Your task to perform on an android device: Go to network settings Image 0: 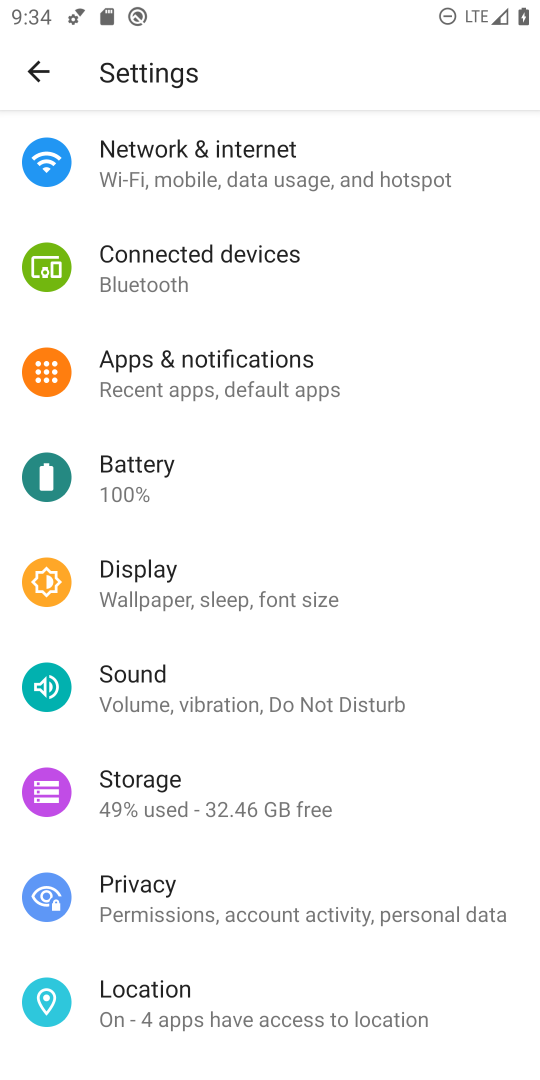
Step 0: press home button
Your task to perform on an android device: Go to network settings Image 1: 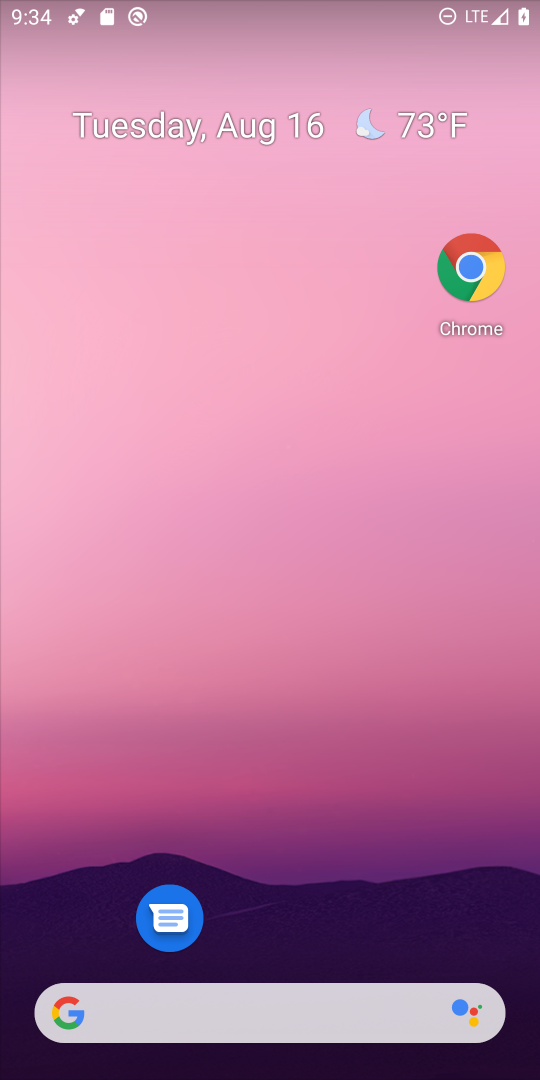
Step 1: drag from (266, 1008) to (308, 397)
Your task to perform on an android device: Go to network settings Image 2: 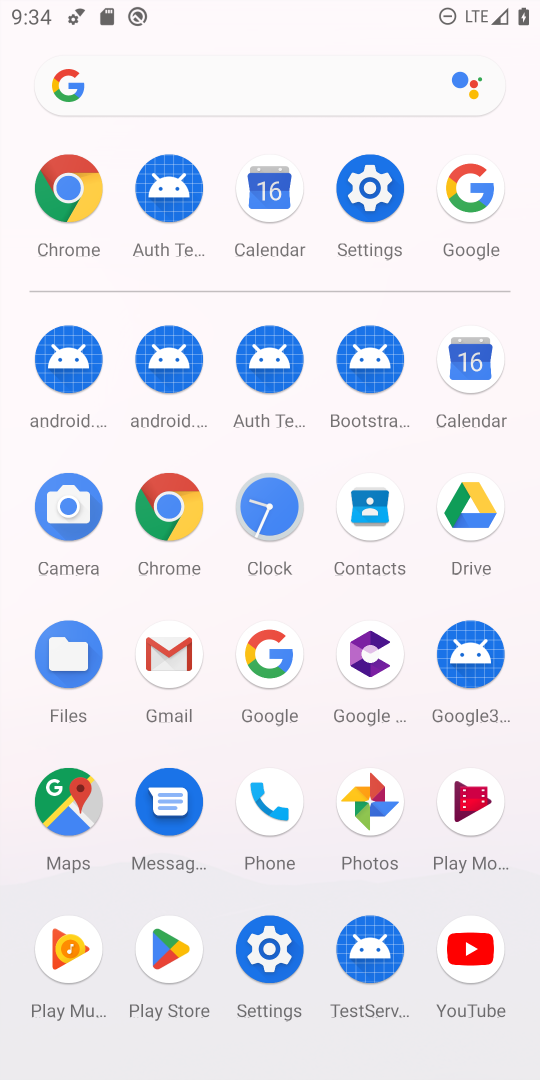
Step 2: click (373, 232)
Your task to perform on an android device: Go to network settings Image 3: 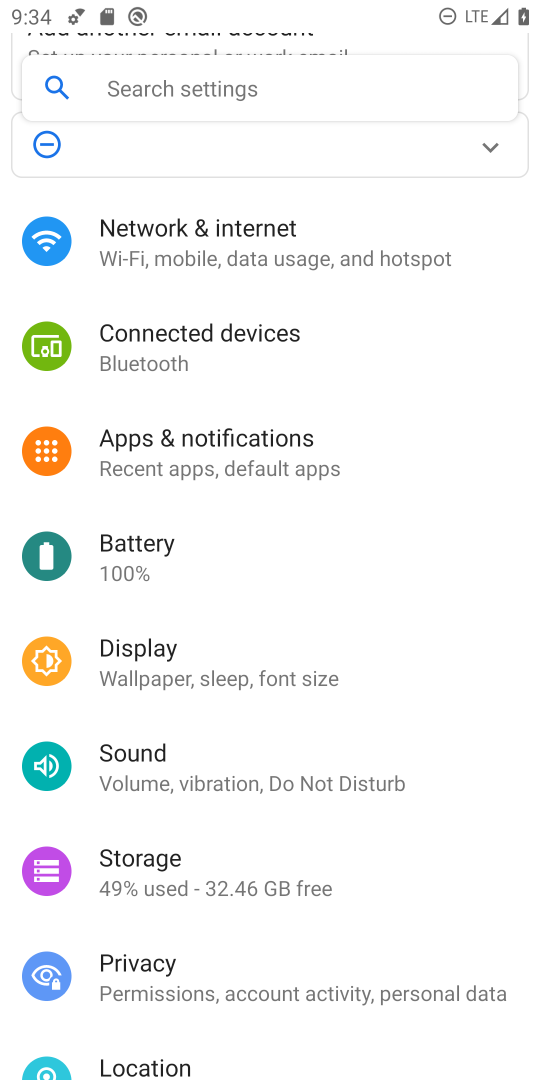
Step 3: click (243, 233)
Your task to perform on an android device: Go to network settings Image 4: 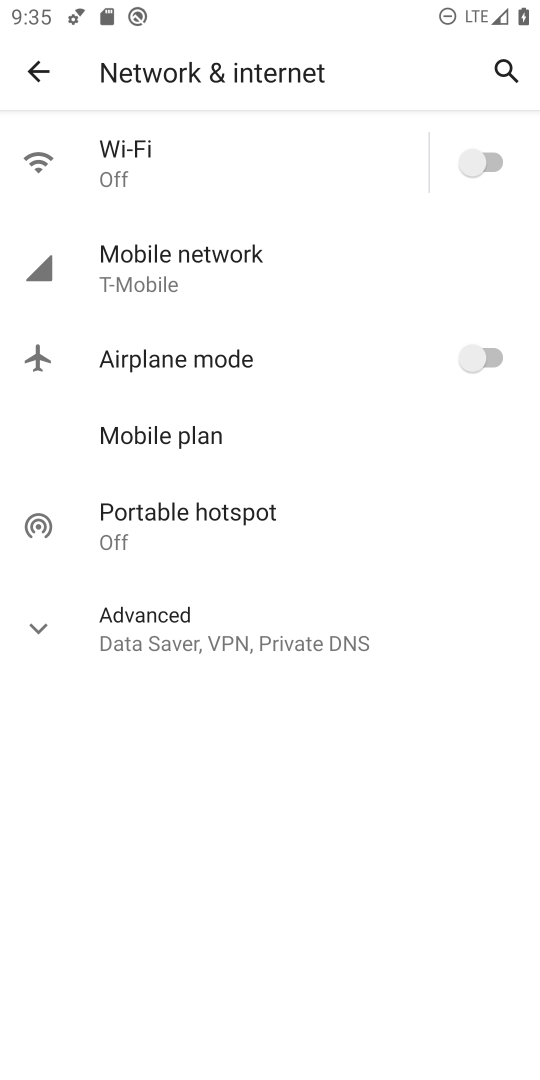
Step 4: click (232, 266)
Your task to perform on an android device: Go to network settings Image 5: 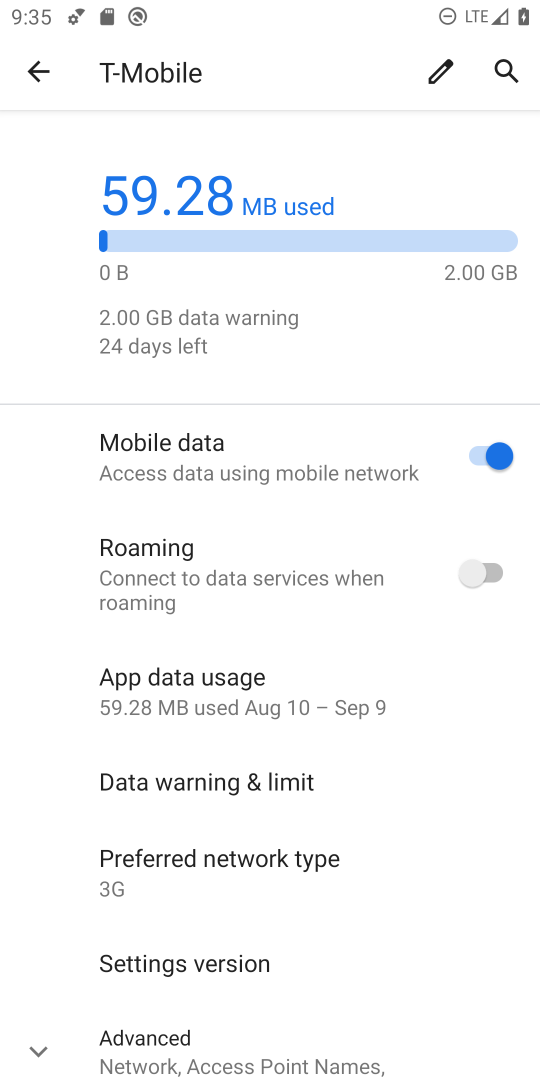
Step 5: task complete